Your task to perform on an android device: What's US dollar exchange rateagainst the Mexican Peso? Image 0: 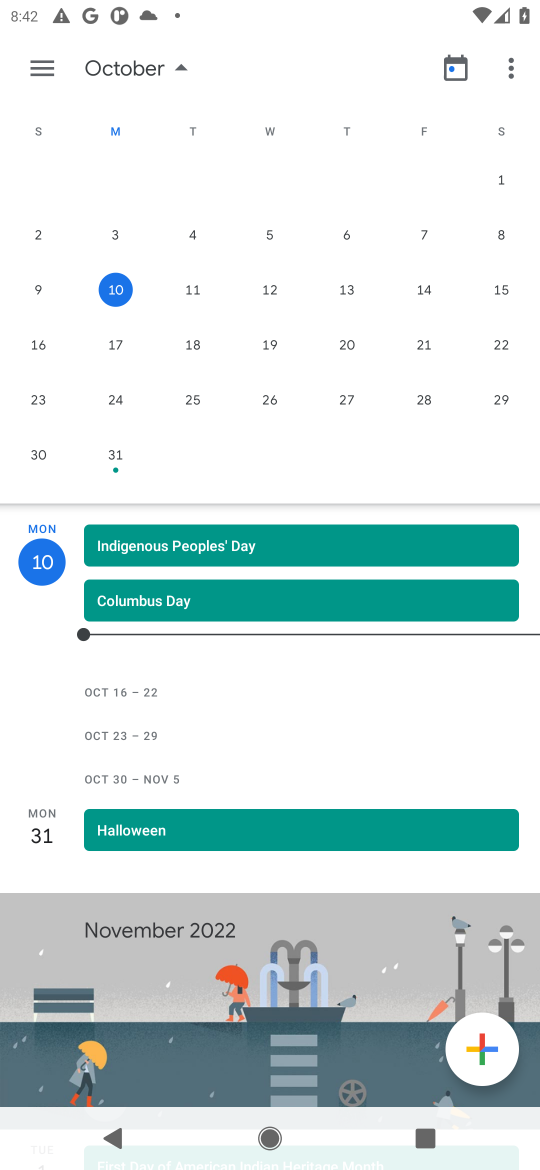
Step 0: press home button
Your task to perform on an android device: What's US dollar exchange rateagainst the Mexican Peso? Image 1: 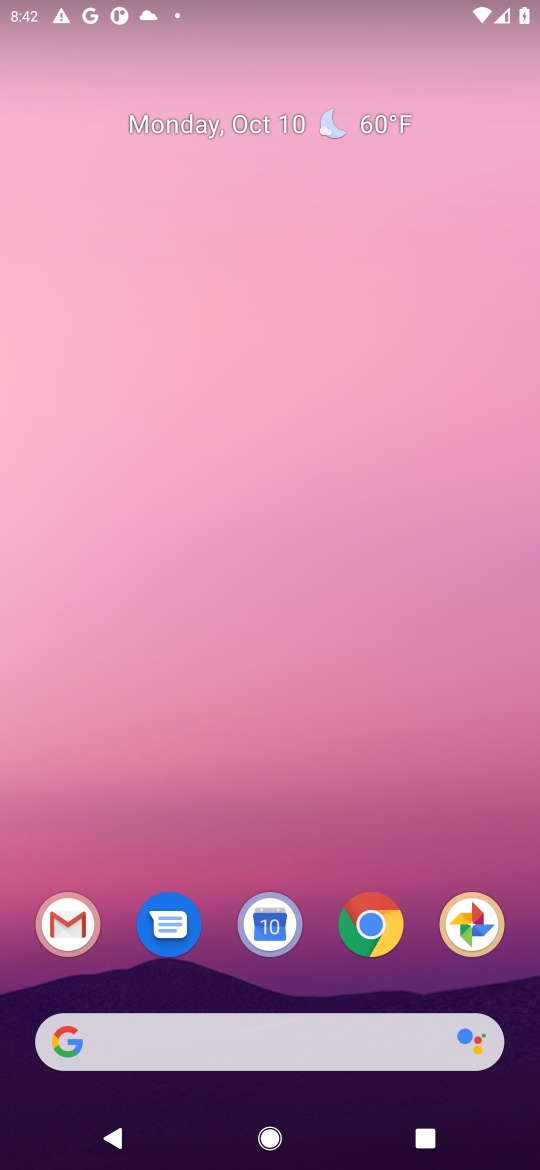
Step 1: drag from (340, 997) to (336, 784)
Your task to perform on an android device: What's US dollar exchange rateagainst the Mexican Peso? Image 2: 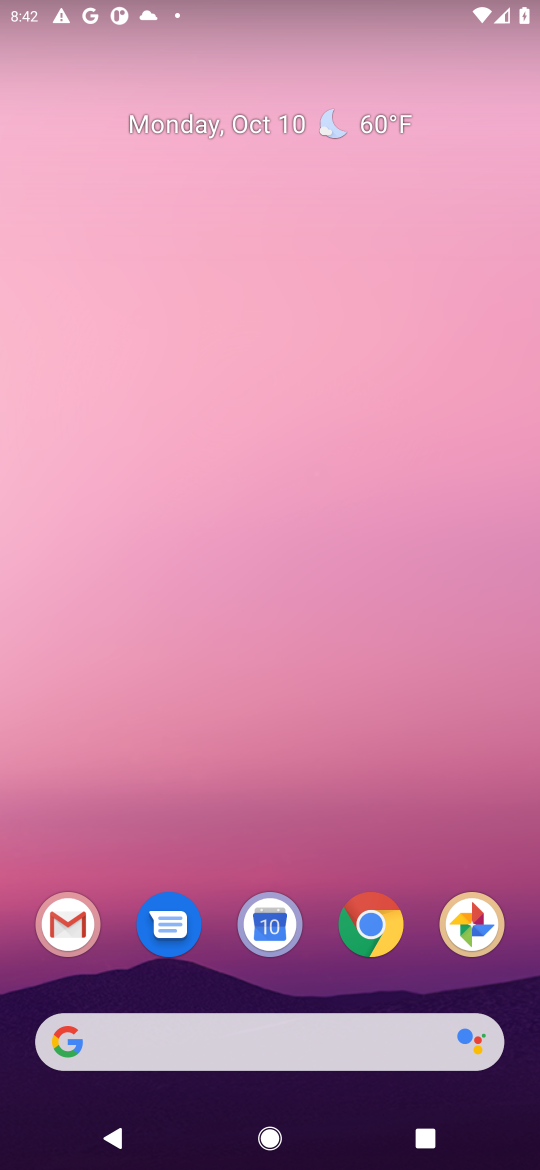
Step 2: drag from (320, 957) to (275, 365)
Your task to perform on an android device: What's US dollar exchange rateagainst the Mexican Peso? Image 3: 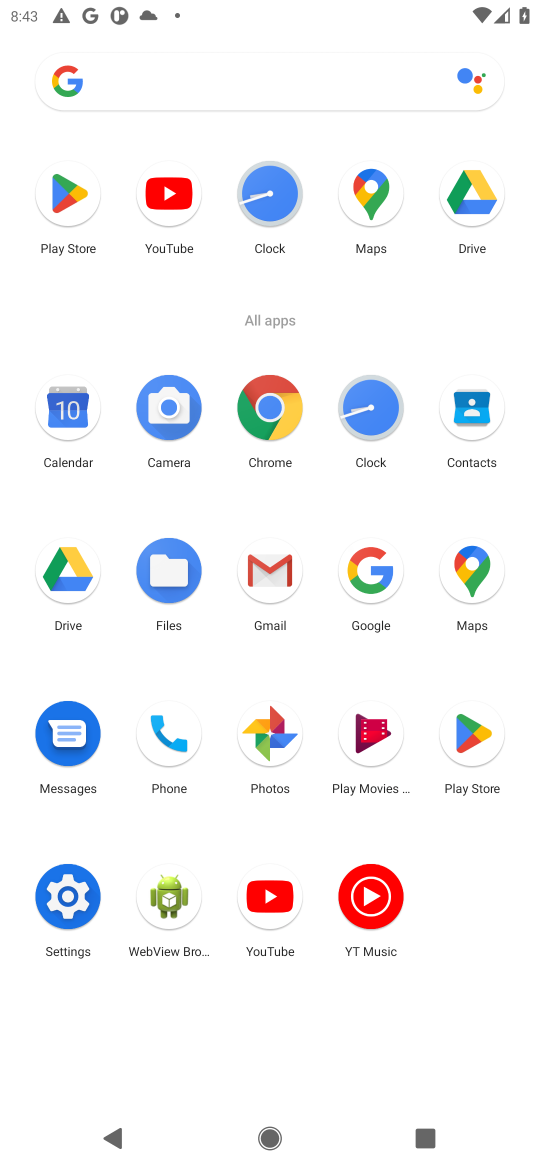
Step 3: click (360, 585)
Your task to perform on an android device: What's US dollar exchange rateagainst the Mexican Peso? Image 4: 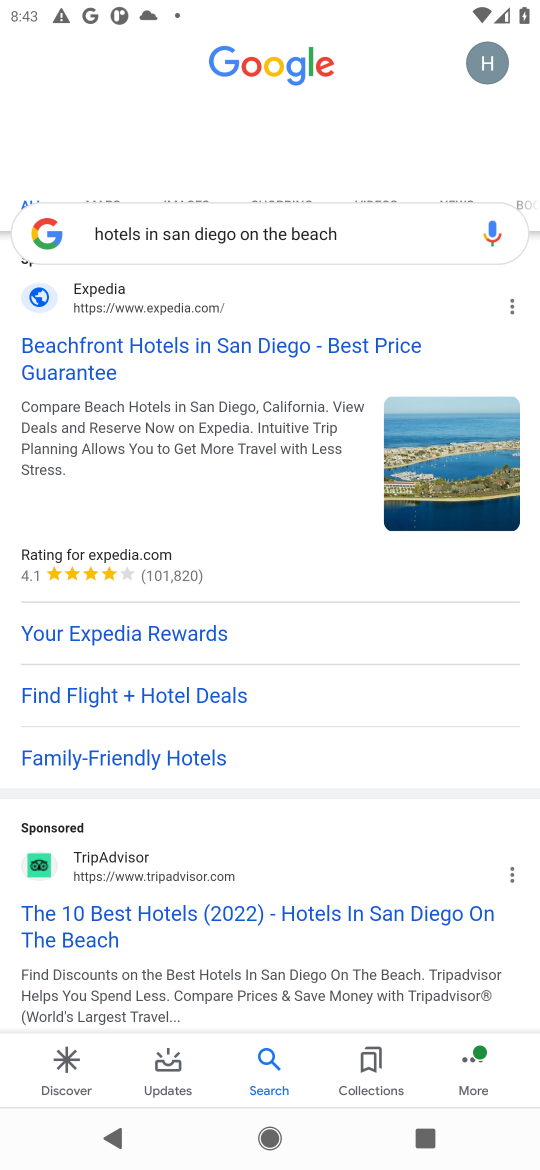
Step 4: click (400, 224)
Your task to perform on an android device: What's US dollar exchange rateagainst the Mexican Peso? Image 5: 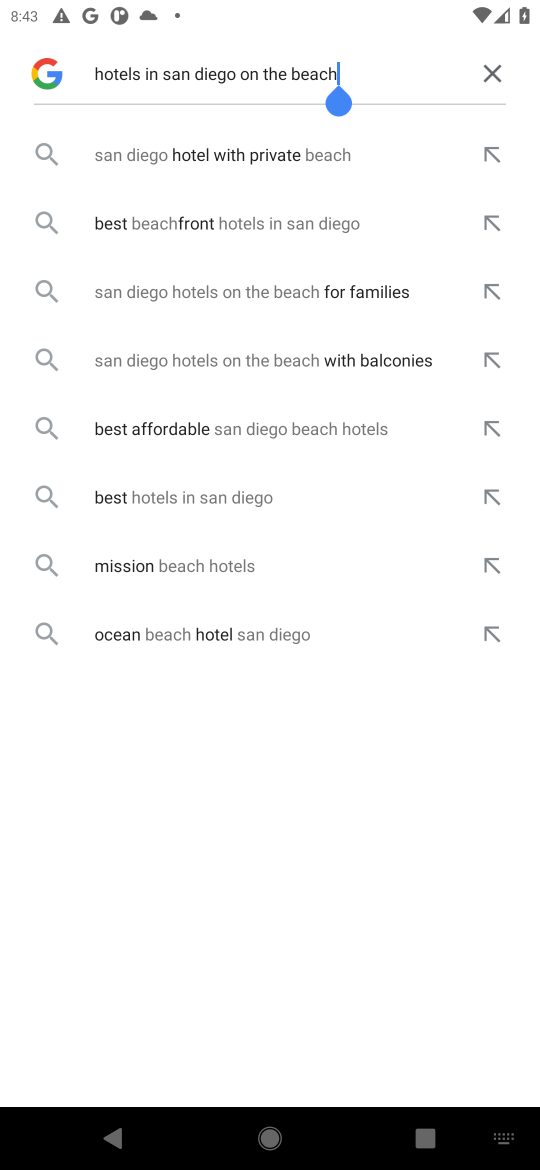
Step 5: click (488, 77)
Your task to perform on an android device: What's US dollar exchange rateagainst the Mexican Peso? Image 6: 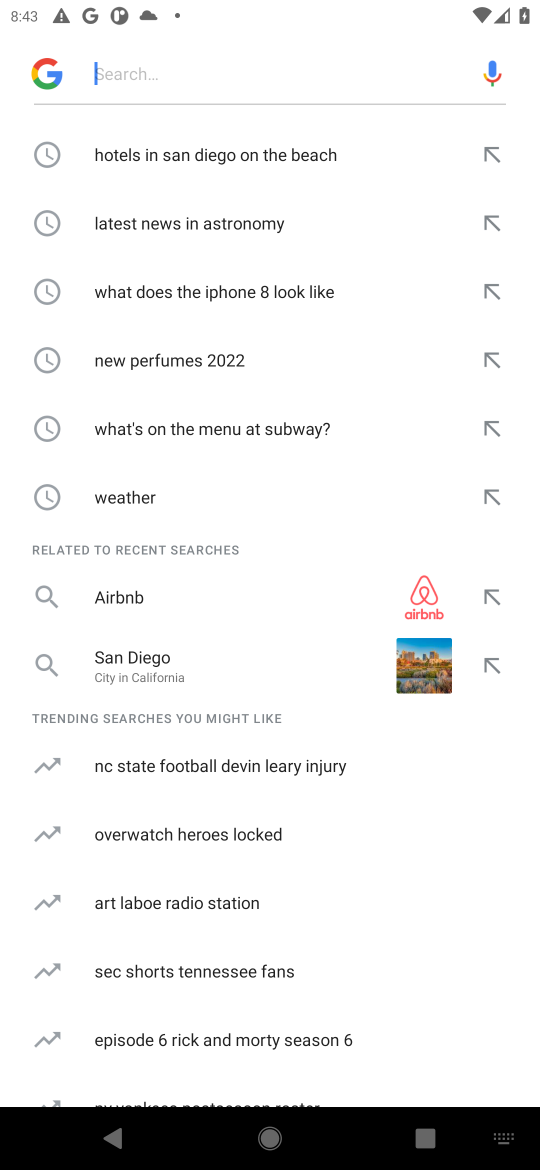
Step 6: type "What's US dollar exchange rateagainst the Mexican Peso?"
Your task to perform on an android device: What's US dollar exchange rateagainst the Mexican Peso? Image 7: 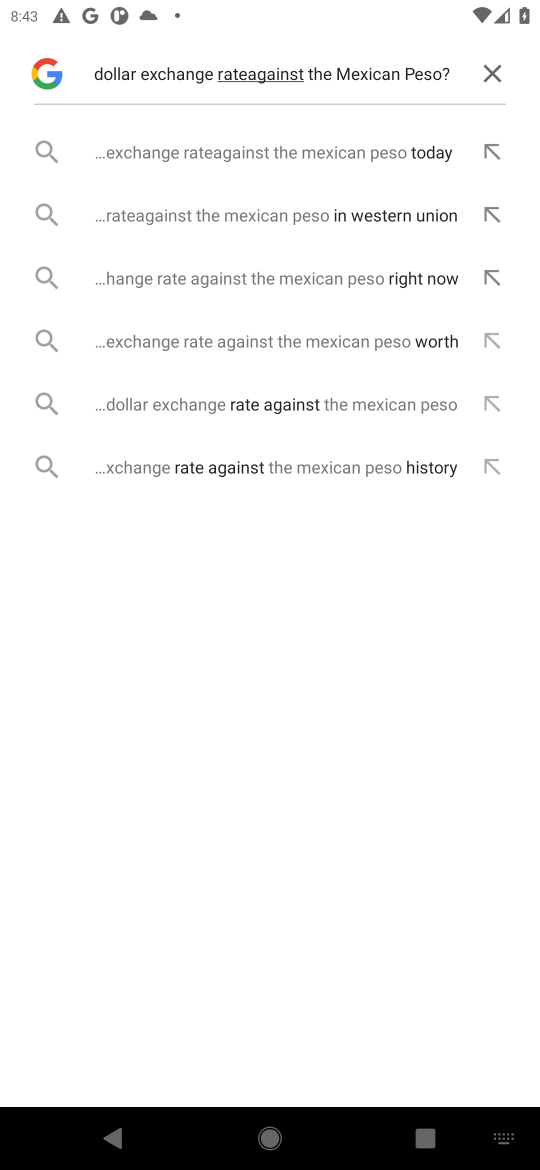
Step 7: click (405, 159)
Your task to perform on an android device: What's US dollar exchange rateagainst the Mexican Peso? Image 8: 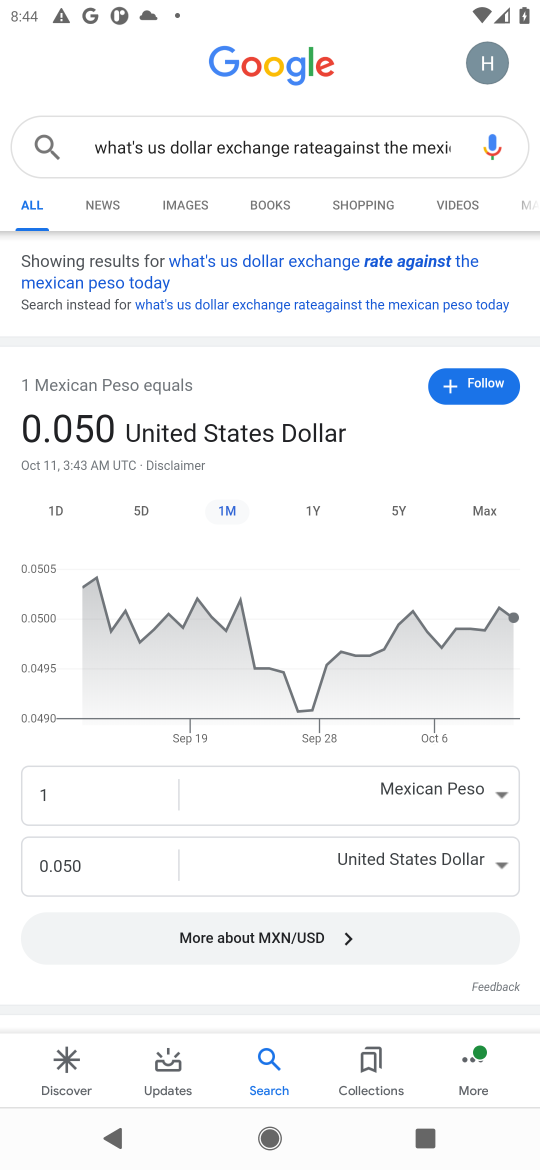
Step 8: task complete